Your task to perform on an android device: change text size in settings app Image 0: 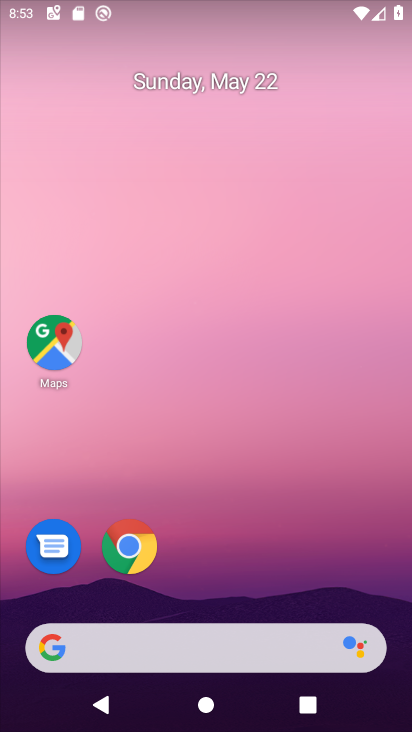
Step 0: drag from (378, 592) to (391, 159)
Your task to perform on an android device: change text size in settings app Image 1: 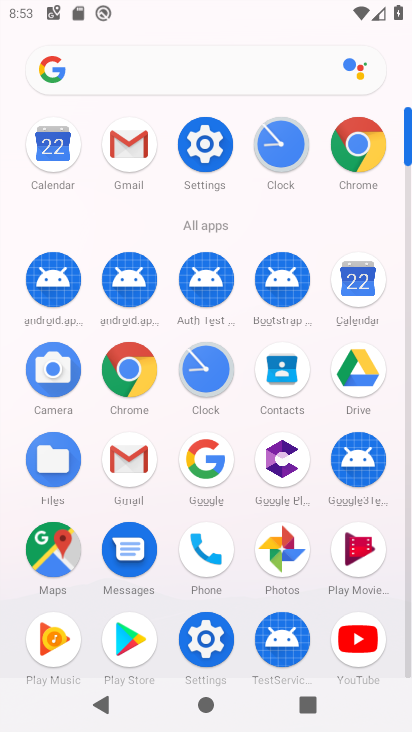
Step 1: click (203, 133)
Your task to perform on an android device: change text size in settings app Image 2: 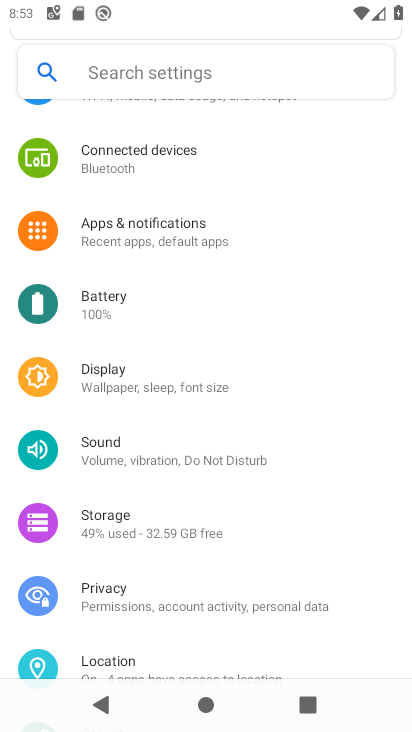
Step 2: drag from (352, 532) to (348, 349)
Your task to perform on an android device: change text size in settings app Image 3: 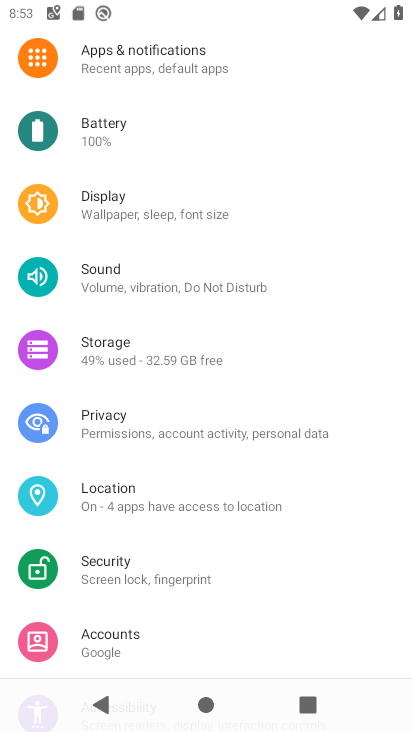
Step 3: drag from (357, 575) to (366, 440)
Your task to perform on an android device: change text size in settings app Image 4: 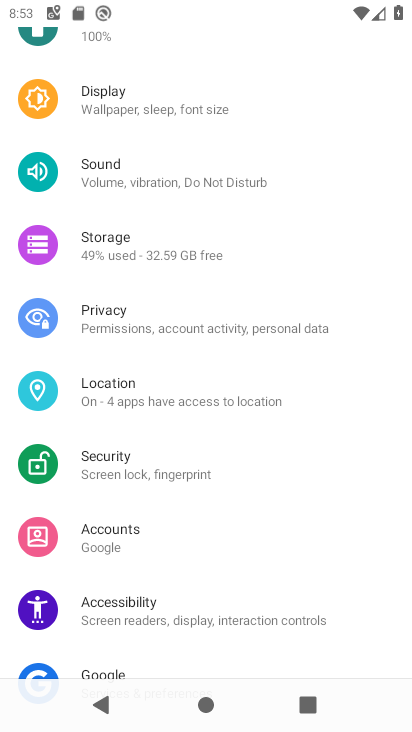
Step 4: drag from (350, 602) to (356, 439)
Your task to perform on an android device: change text size in settings app Image 5: 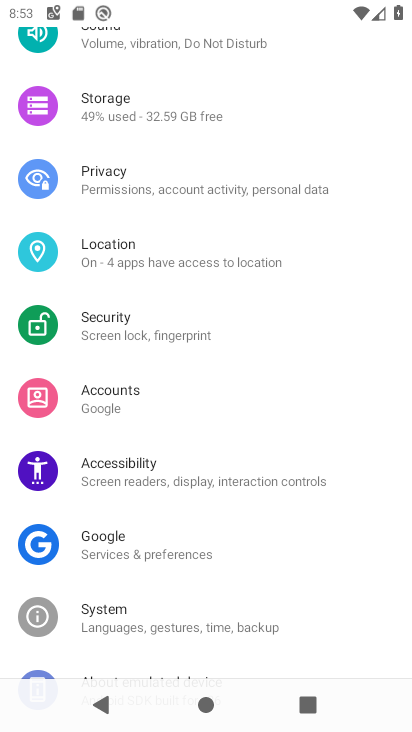
Step 5: drag from (353, 600) to (347, 458)
Your task to perform on an android device: change text size in settings app Image 6: 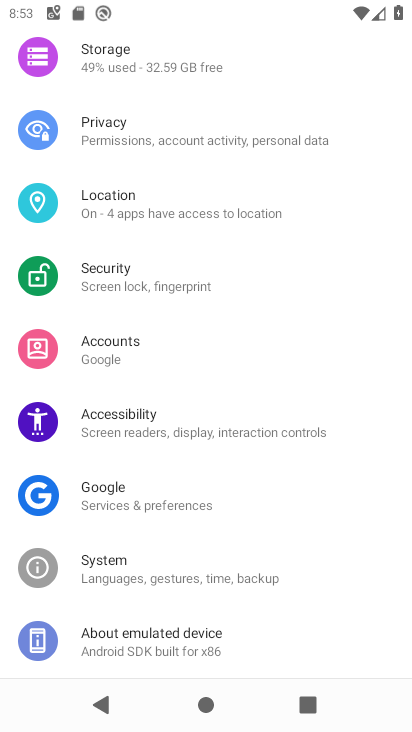
Step 6: drag from (343, 607) to (327, 446)
Your task to perform on an android device: change text size in settings app Image 7: 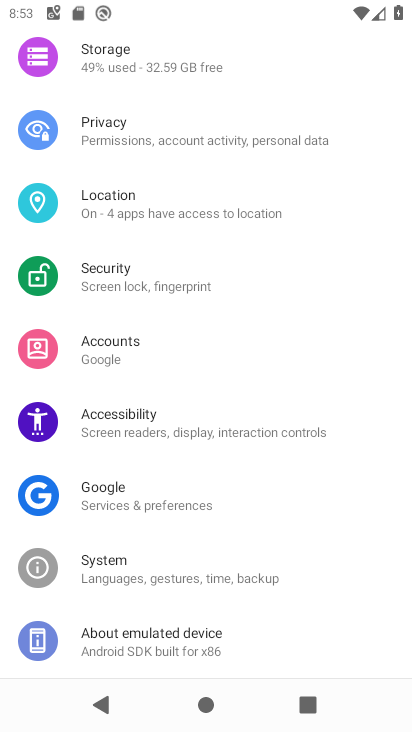
Step 7: drag from (337, 429) to (342, 464)
Your task to perform on an android device: change text size in settings app Image 8: 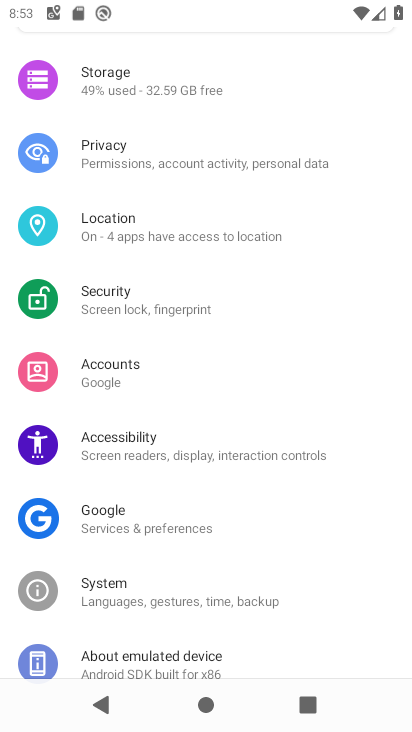
Step 8: drag from (359, 349) to (364, 459)
Your task to perform on an android device: change text size in settings app Image 9: 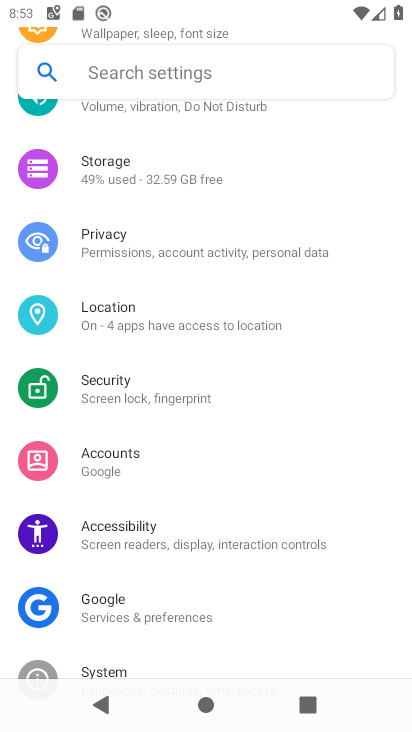
Step 9: drag from (351, 298) to (353, 407)
Your task to perform on an android device: change text size in settings app Image 10: 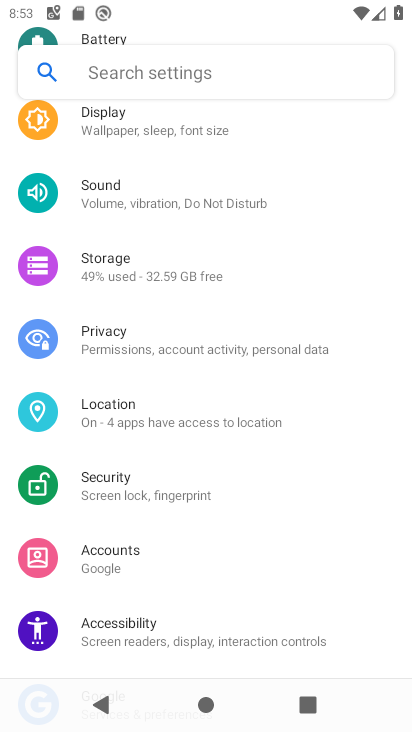
Step 10: drag from (349, 277) to (358, 393)
Your task to perform on an android device: change text size in settings app Image 11: 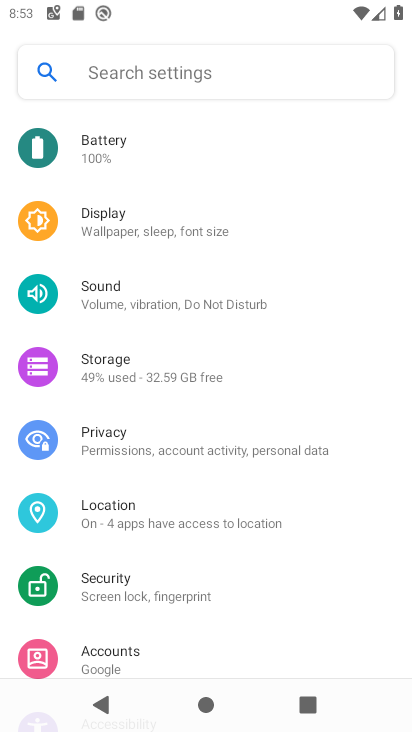
Step 11: drag from (362, 269) to (368, 375)
Your task to perform on an android device: change text size in settings app Image 12: 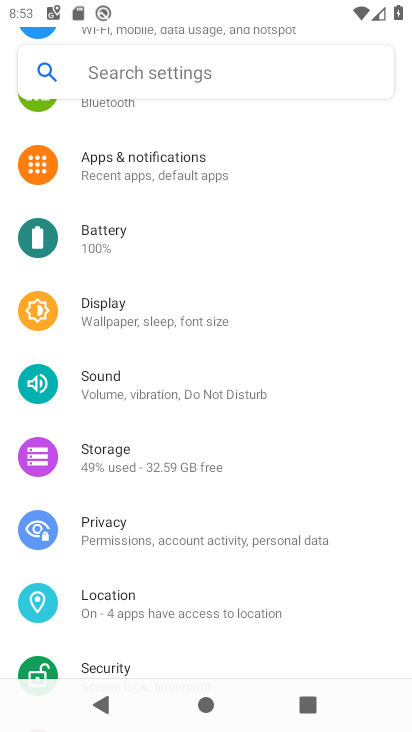
Step 12: drag from (336, 275) to (325, 403)
Your task to perform on an android device: change text size in settings app Image 13: 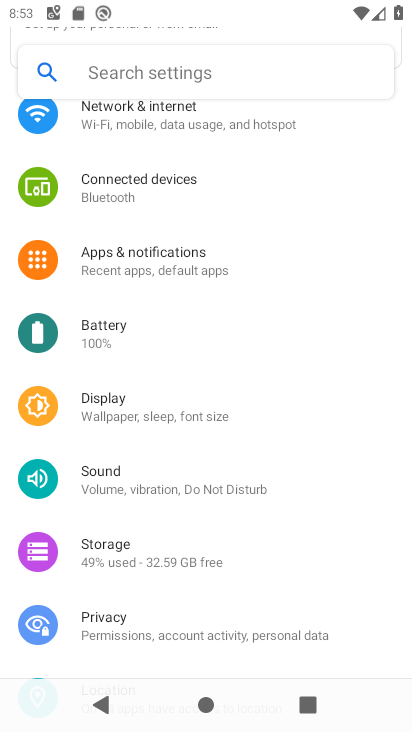
Step 13: drag from (324, 269) to (321, 403)
Your task to perform on an android device: change text size in settings app Image 14: 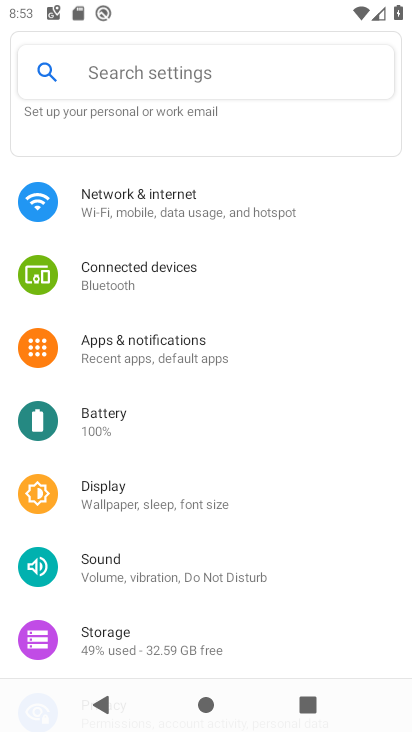
Step 14: click (145, 500)
Your task to perform on an android device: change text size in settings app Image 15: 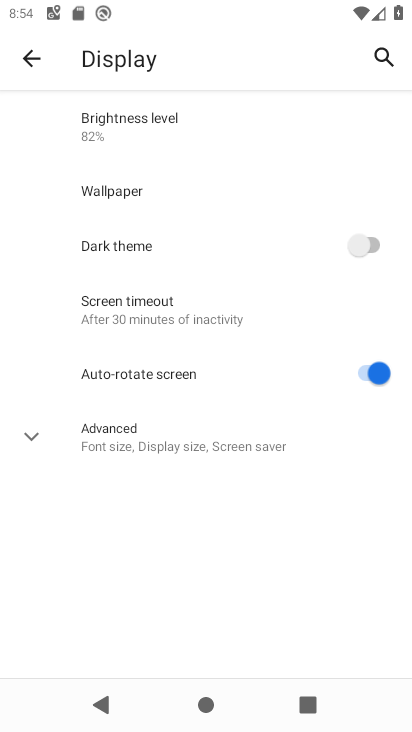
Step 15: click (156, 459)
Your task to perform on an android device: change text size in settings app Image 16: 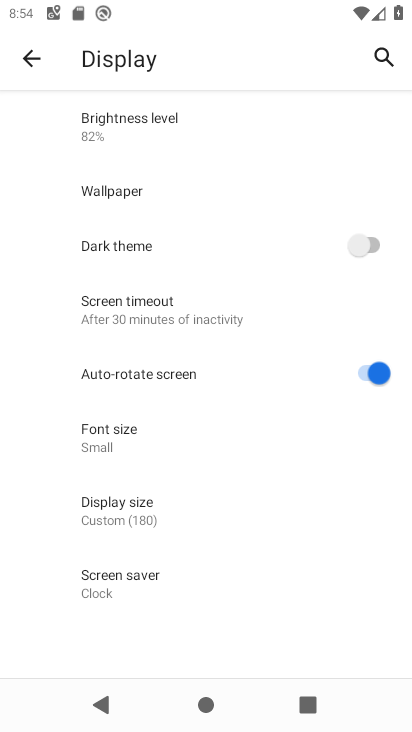
Step 16: click (151, 444)
Your task to perform on an android device: change text size in settings app Image 17: 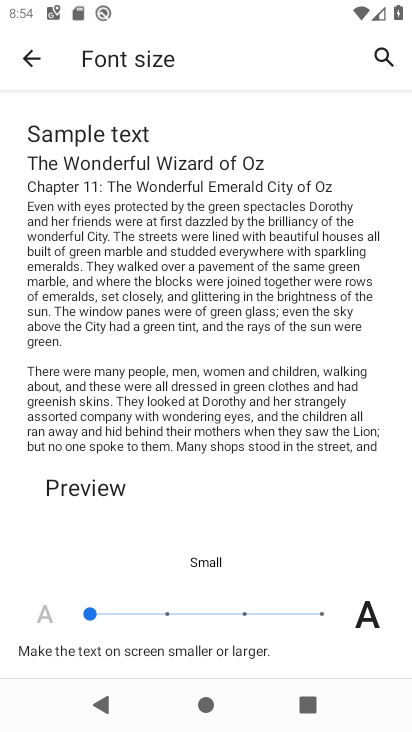
Step 17: click (164, 616)
Your task to perform on an android device: change text size in settings app Image 18: 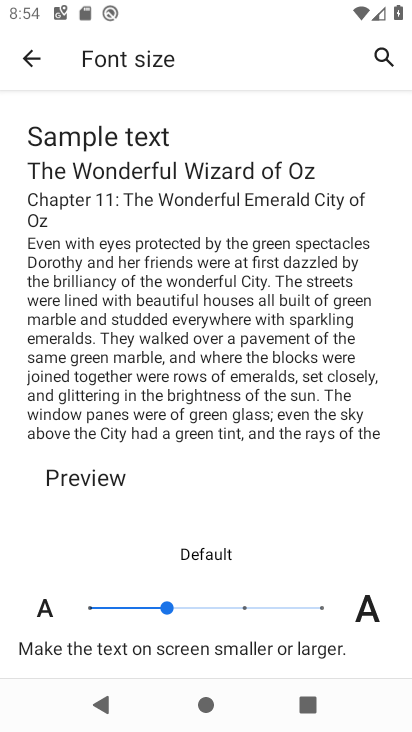
Step 18: task complete